Your task to perform on an android device: Set the phone to "Do not disturb". Image 0: 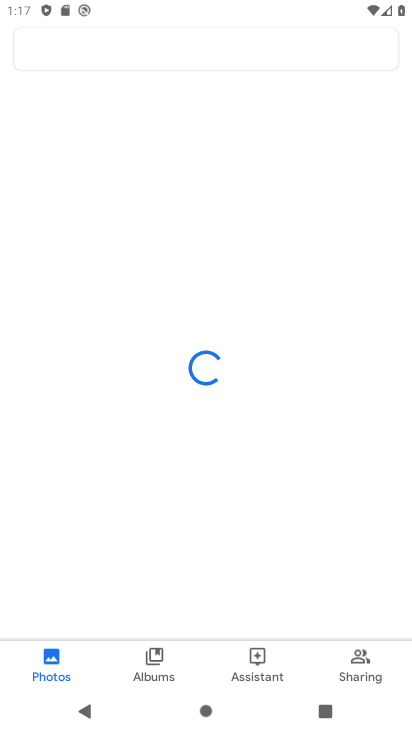
Step 0: press back button
Your task to perform on an android device: Set the phone to "Do not disturb". Image 1: 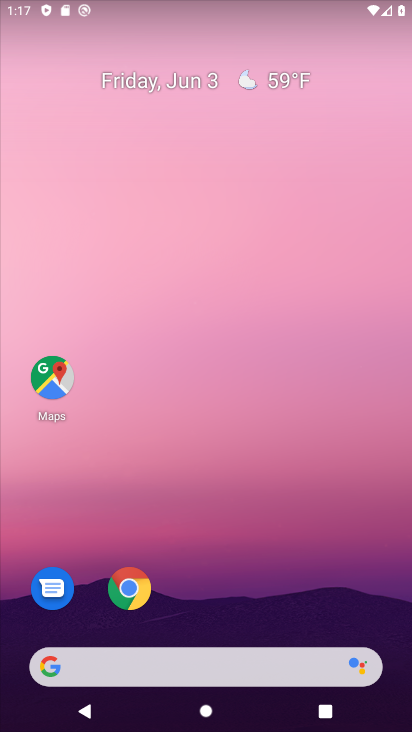
Step 1: drag from (271, 581) to (255, 14)
Your task to perform on an android device: Set the phone to "Do not disturb". Image 2: 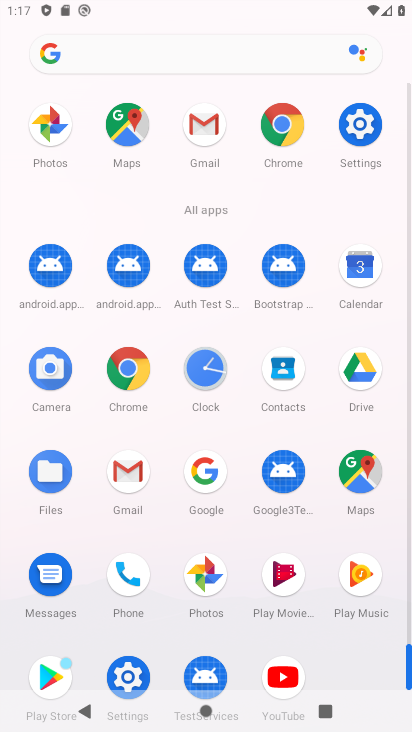
Step 2: click (359, 121)
Your task to perform on an android device: Set the phone to "Do not disturb". Image 3: 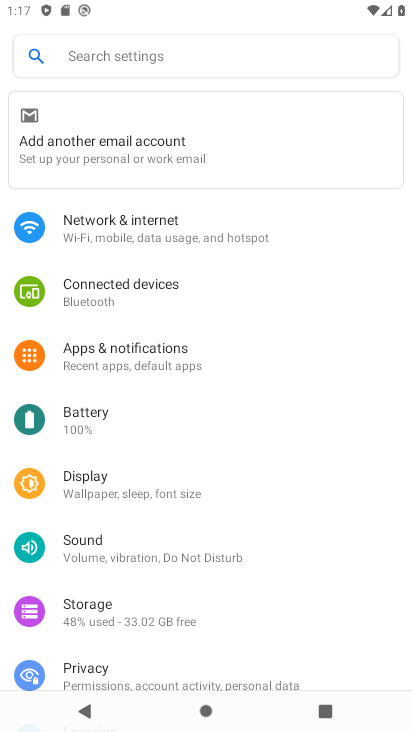
Step 3: click (163, 546)
Your task to perform on an android device: Set the phone to "Do not disturb". Image 4: 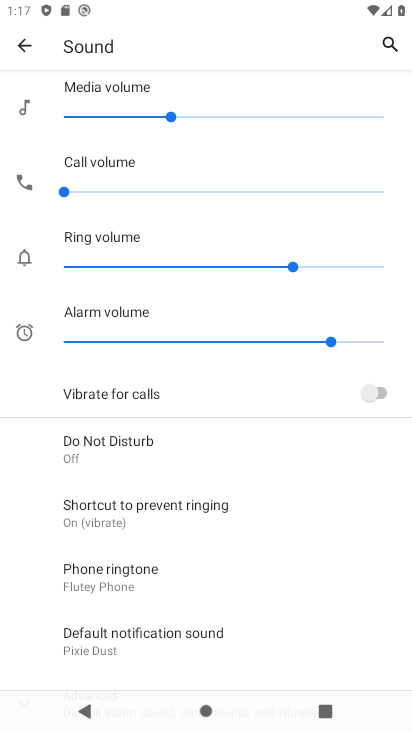
Step 4: click (134, 440)
Your task to perform on an android device: Set the phone to "Do not disturb". Image 5: 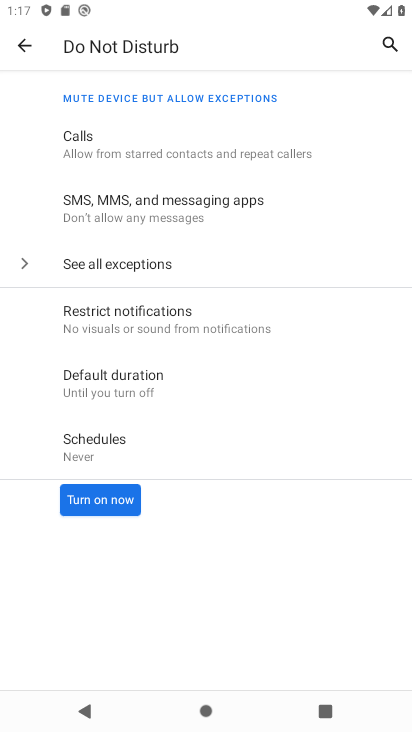
Step 5: click (96, 499)
Your task to perform on an android device: Set the phone to "Do not disturb". Image 6: 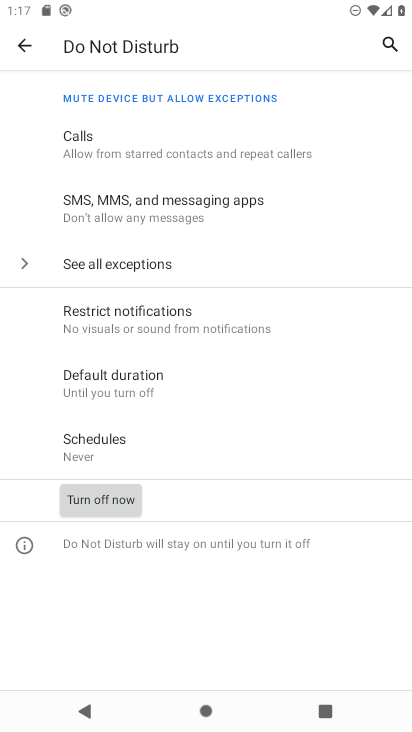
Step 6: task complete